Your task to perform on an android device: read, delete, or share a saved page in the chrome app Image 0: 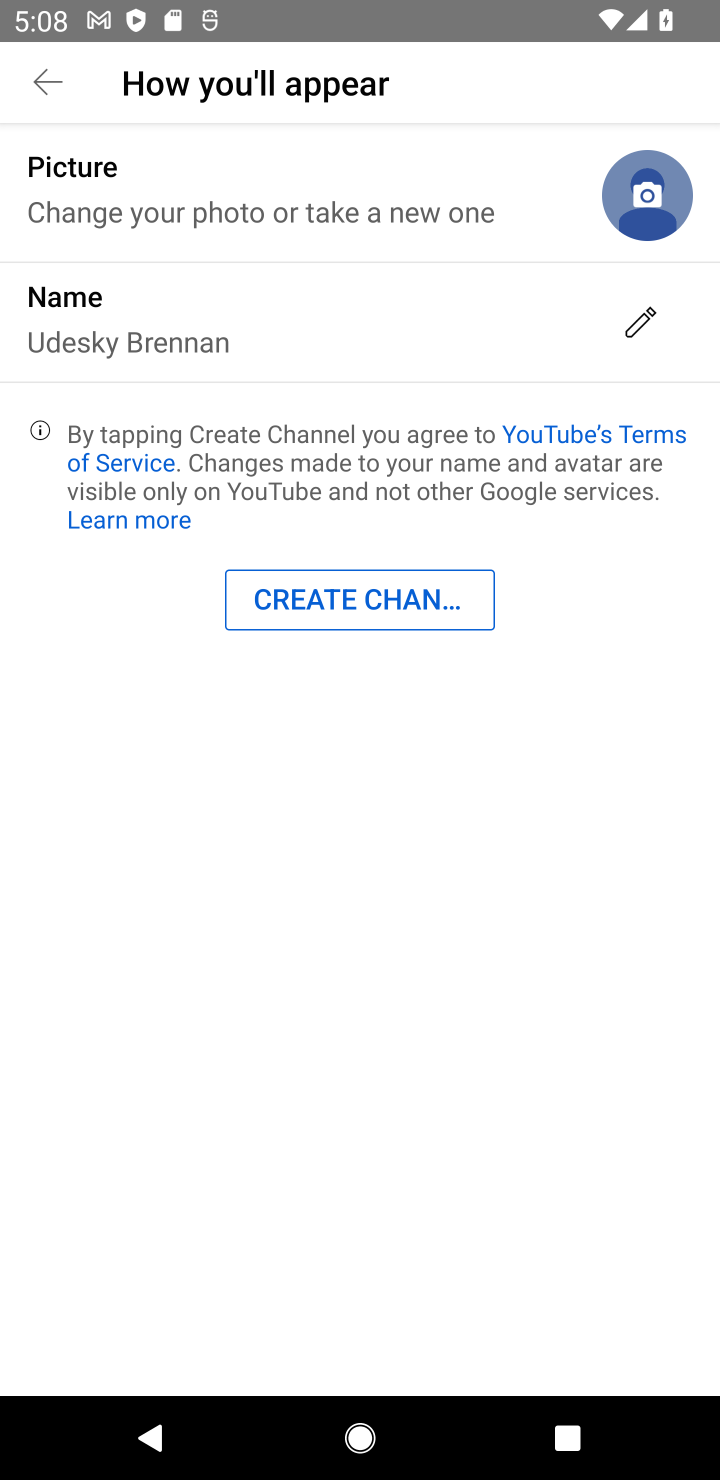
Step 0: task complete